Your task to perform on an android device: open chrome privacy settings Image 0: 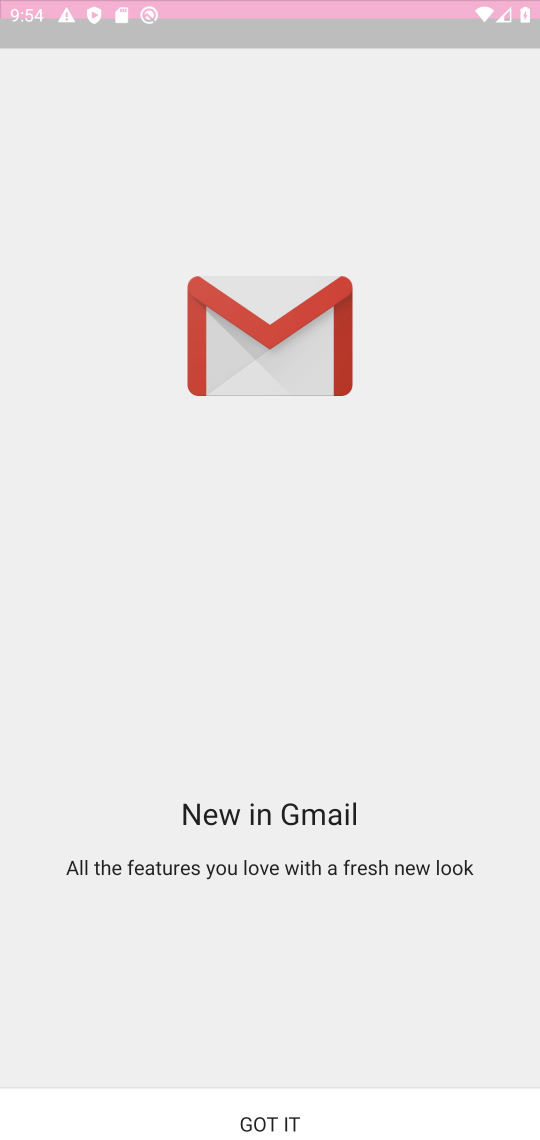
Step 0: click (244, 210)
Your task to perform on an android device: open chrome privacy settings Image 1: 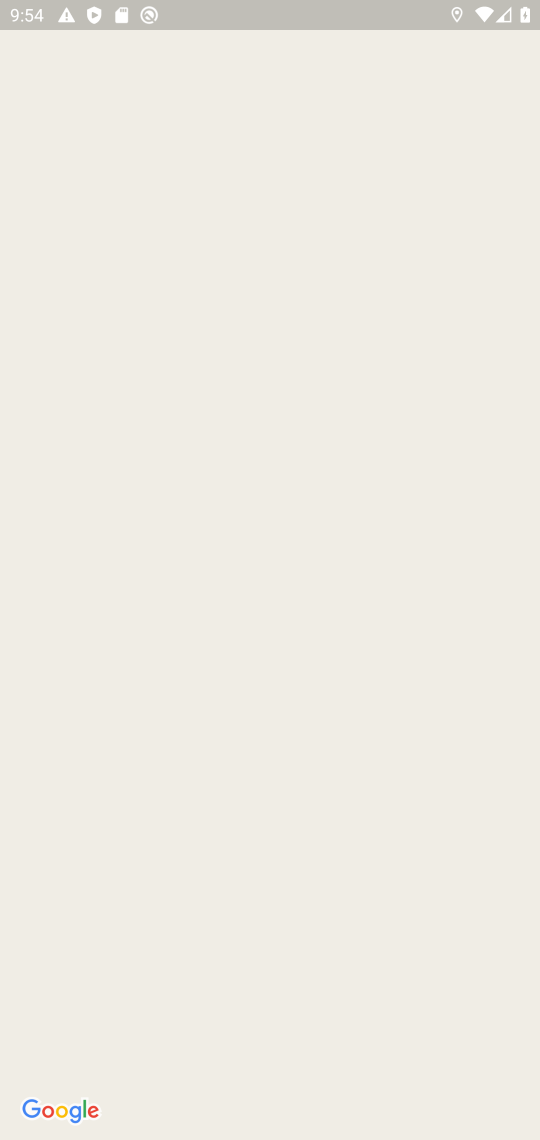
Step 1: press home button
Your task to perform on an android device: open chrome privacy settings Image 2: 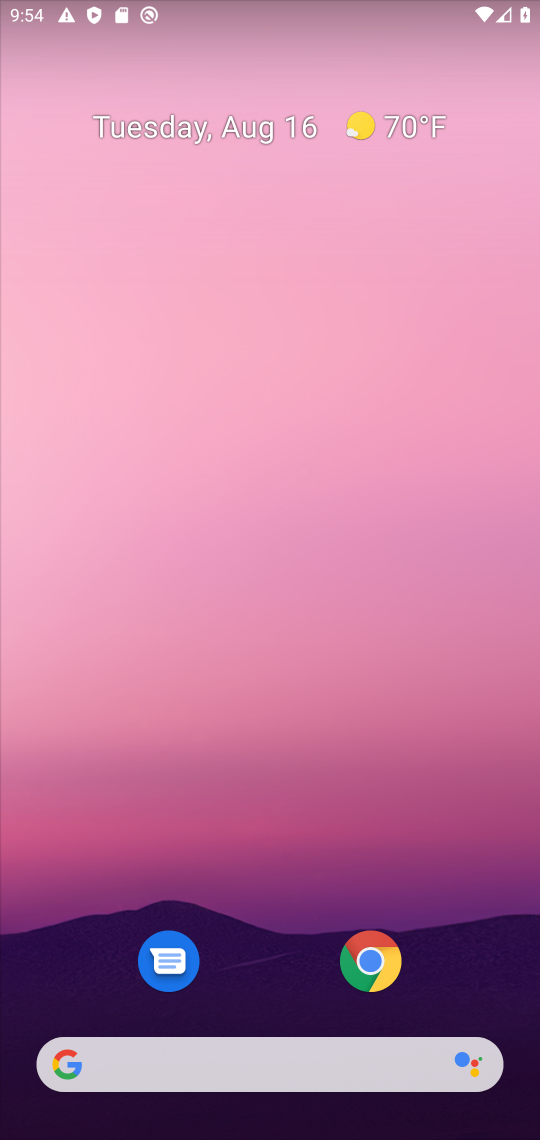
Step 2: drag from (282, 868) to (195, 451)
Your task to perform on an android device: open chrome privacy settings Image 3: 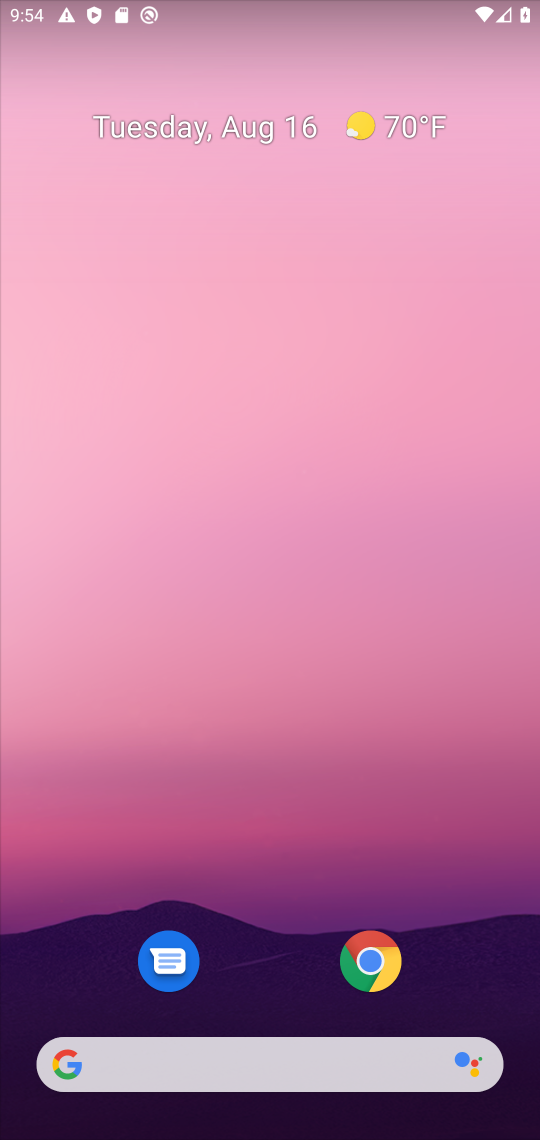
Step 3: drag from (309, 882) to (361, 343)
Your task to perform on an android device: open chrome privacy settings Image 4: 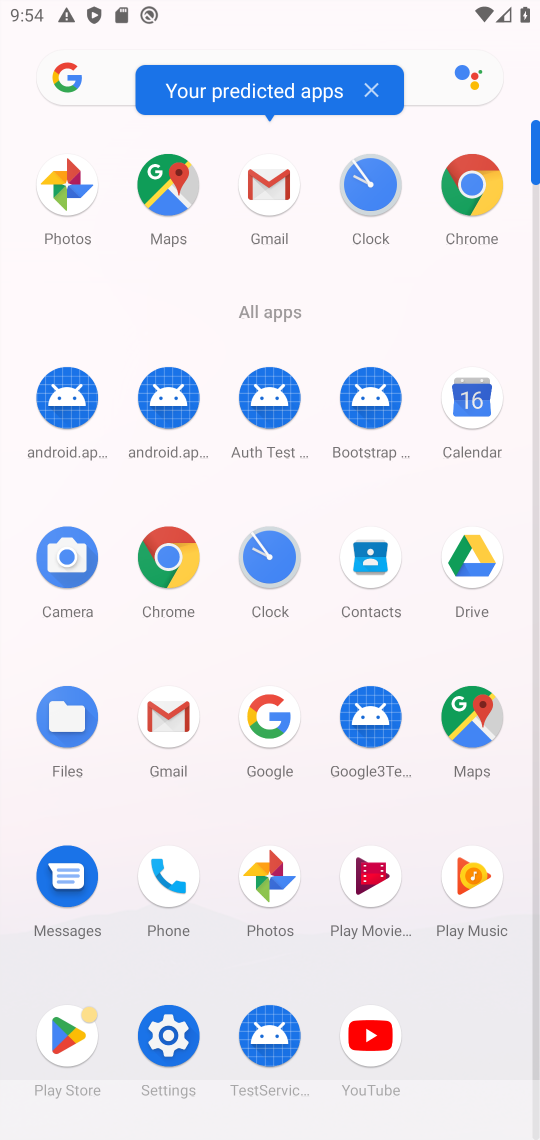
Step 4: click (160, 1048)
Your task to perform on an android device: open chrome privacy settings Image 5: 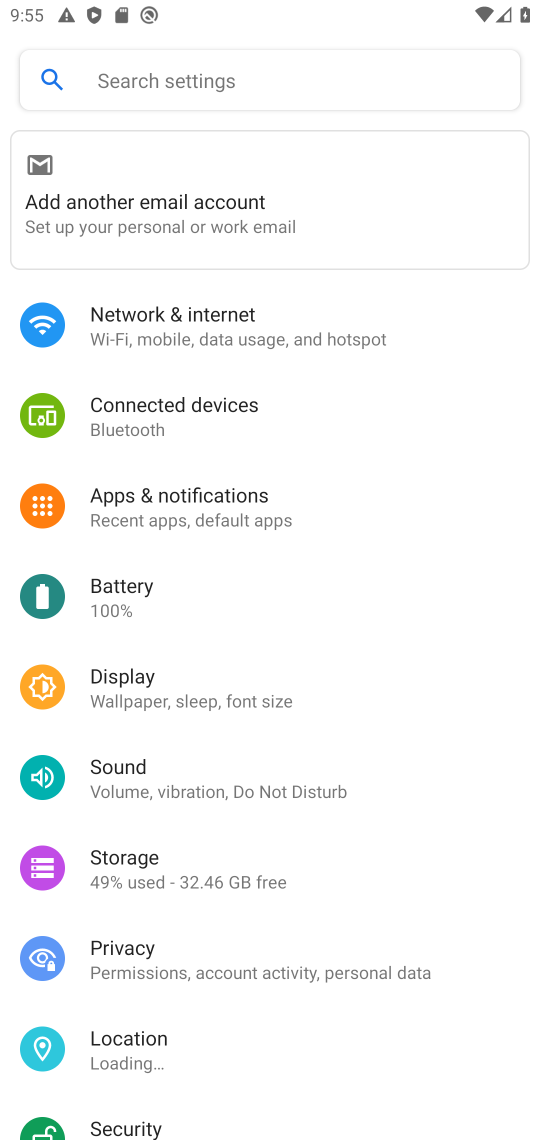
Step 5: task complete